Your task to perform on an android device: What is the news today? Image 0: 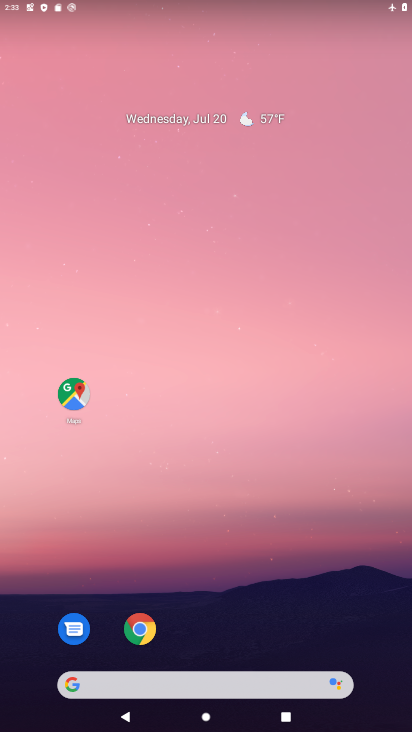
Step 0: drag from (232, 615) to (237, 77)
Your task to perform on an android device: What is the news today? Image 1: 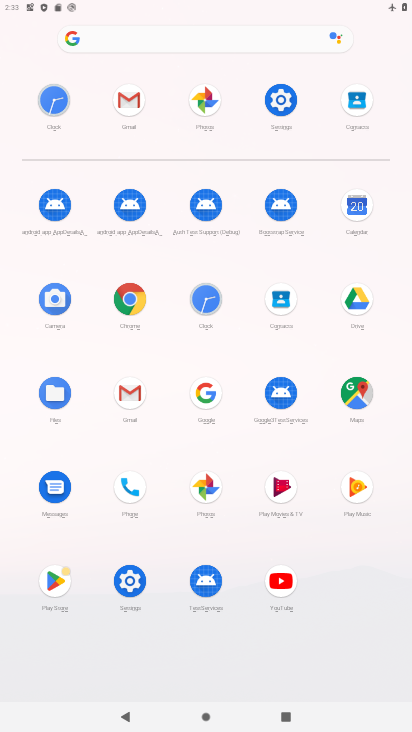
Step 1: click (201, 410)
Your task to perform on an android device: What is the news today? Image 2: 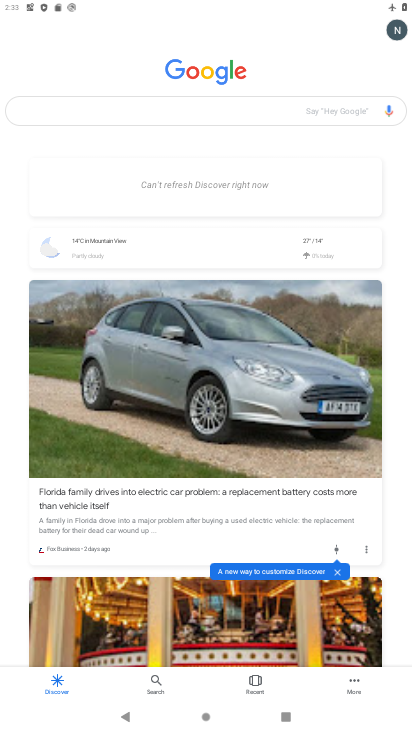
Step 2: drag from (200, 104) to (150, 104)
Your task to perform on an android device: What is the news today? Image 3: 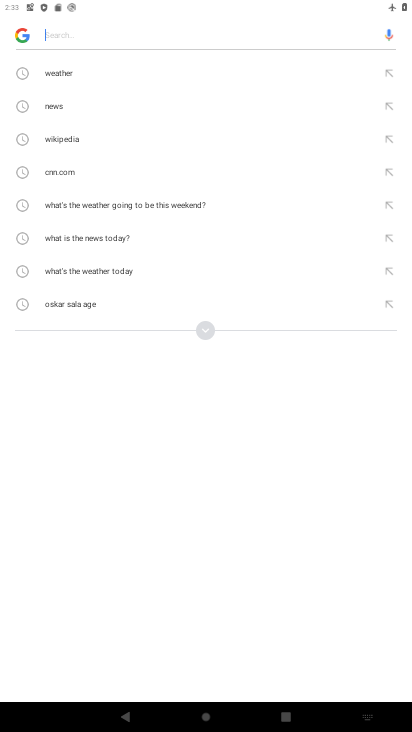
Step 3: click (44, 102)
Your task to perform on an android device: What is the news today? Image 4: 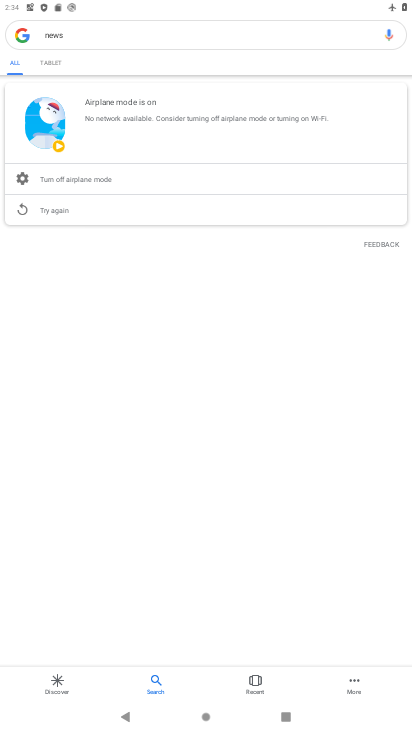
Step 4: task complete